Your task to perform on an android device: turn pop-ups on in chrome Image 0: 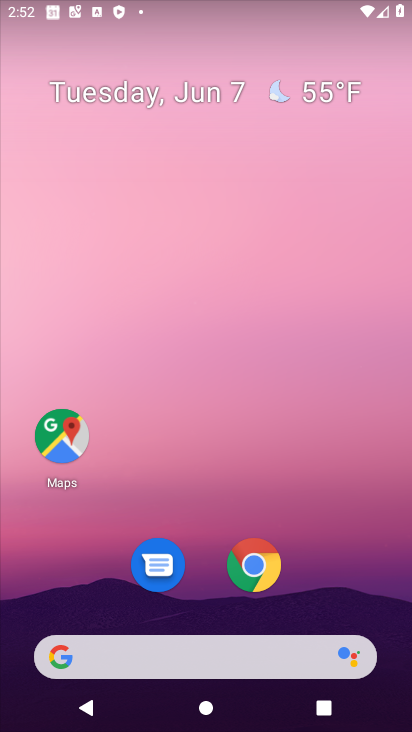
Step 0: drag from (318, 681) to (289, 110)
Your task to perform on an android device: turn pop-ups on in chrome Image 1: 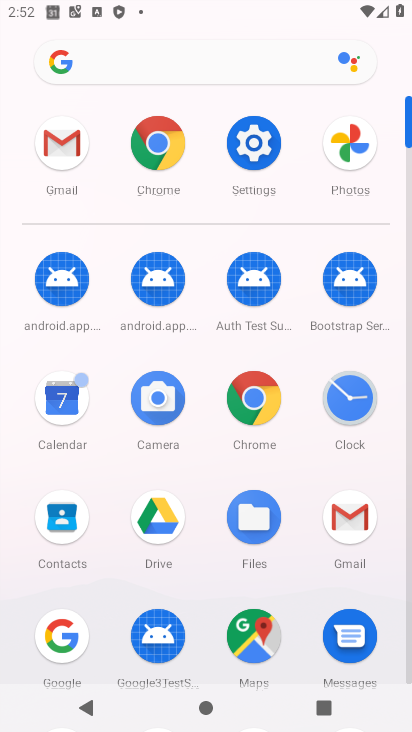
Step 1: click (259, 410)
Your task to perform on an android device: turn pop-ups on in chrome Image 2: 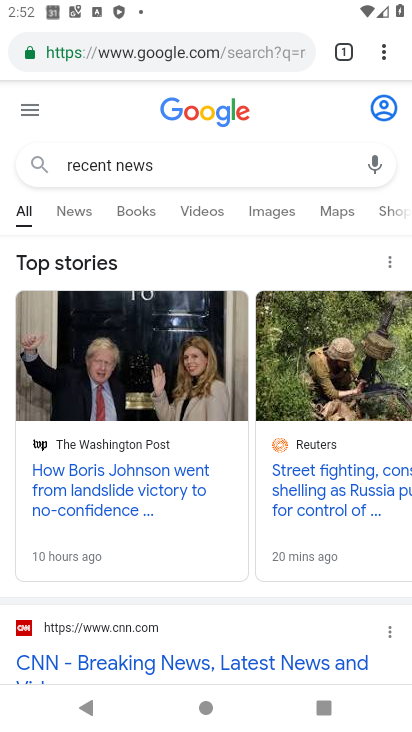
Step 2: click (390, 47)
Your task to perform on an android device: turn pop-ups on in chrome Image 3: 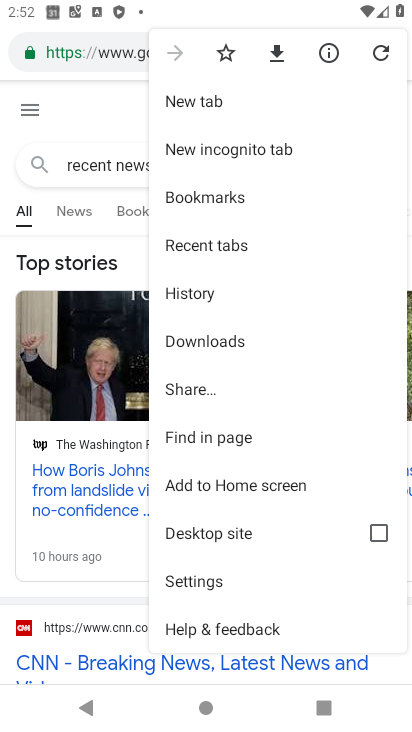
Step 3: click (218, 586)
Your task to perform on an android device: turn pop-ups on in chrome Image 4: 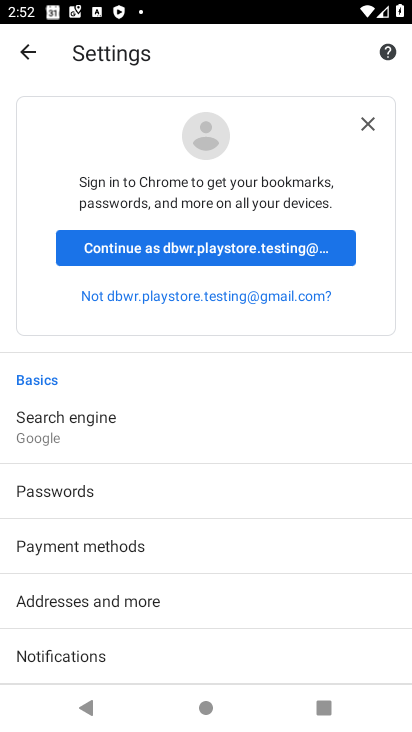
Step 4: drag from (158, 652) to (235, 218)
Your task to perform on an android device: turn pop-ups on in chrome Image 5: 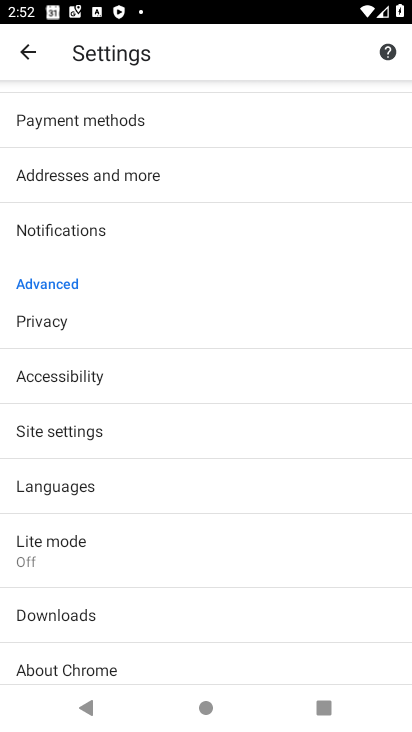
Step 5: click (97, 444)
Your task to perform on an android device: turn pop-ups on in chrome Image 6: 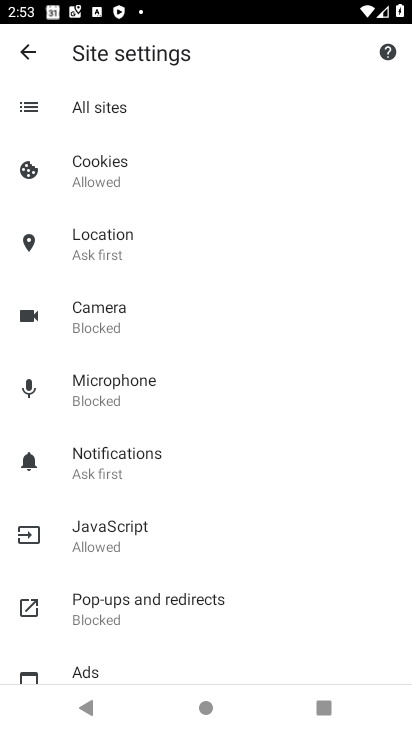
Step 6: click (192, 581)
Your task to perform on an android device: turn pop-ups on in chrome Image 7: 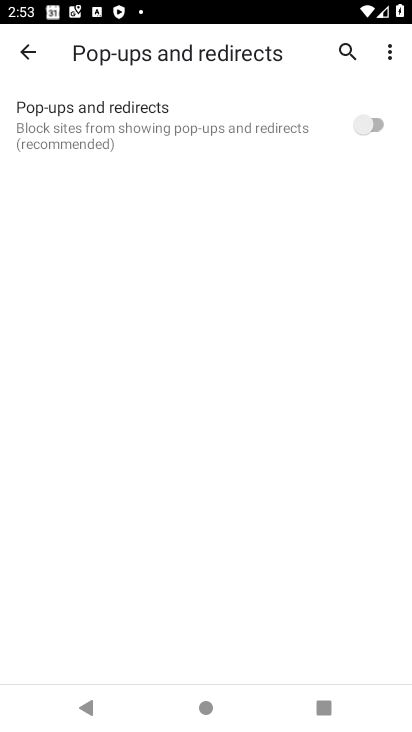
Step 7: click (374, 127)
Your task to perform on an android device: turn pop-ups on in chrome Image 8: 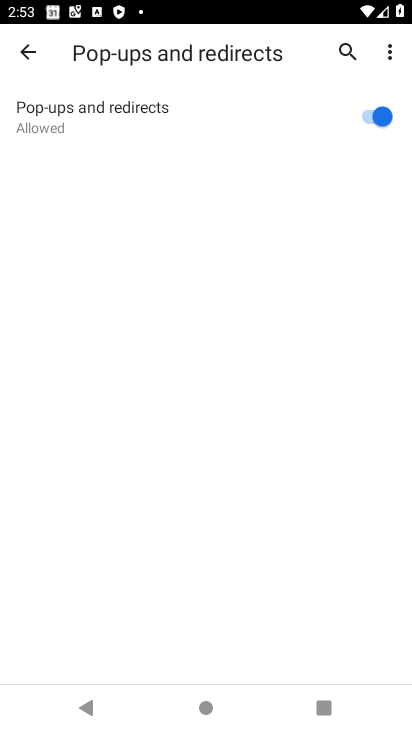
Step 8: task complete